Your task to perform on an android device: all mails in gmail Image 0: 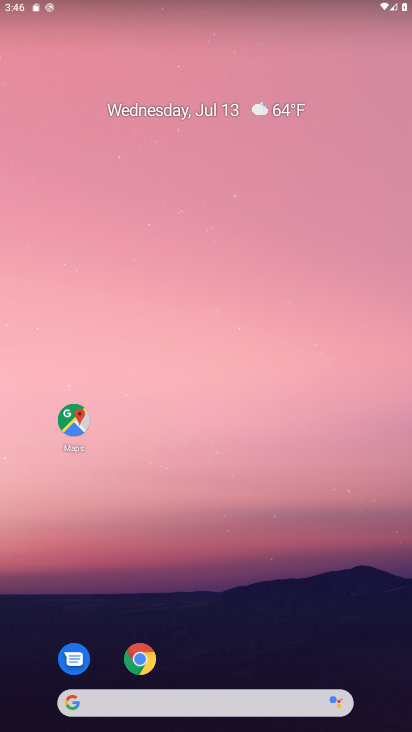
Step 0: drag from (218, 673) to (335, 224)
Your task to perform on an android device: all mails in gmail Image 1: 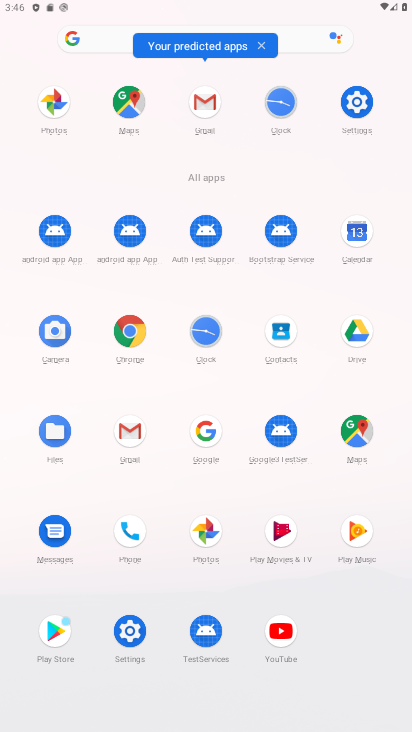
Step 1: click (144, 429)
Your task to perform on an android device: all mails in gmail Image 2: 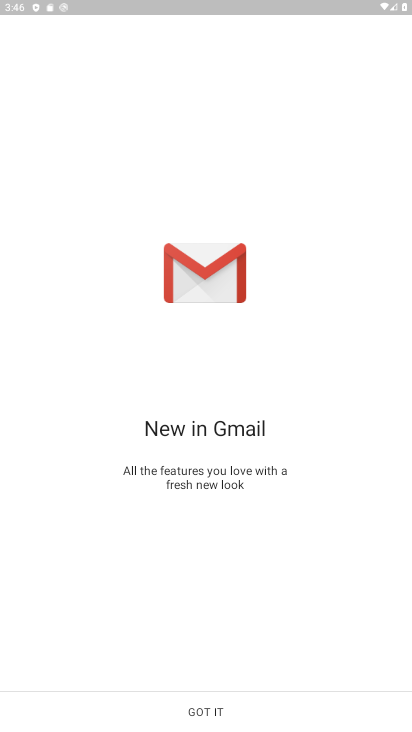
Step 2: click (269, 716)
Your task to perform on an android device: all mails in gmail Image 3: 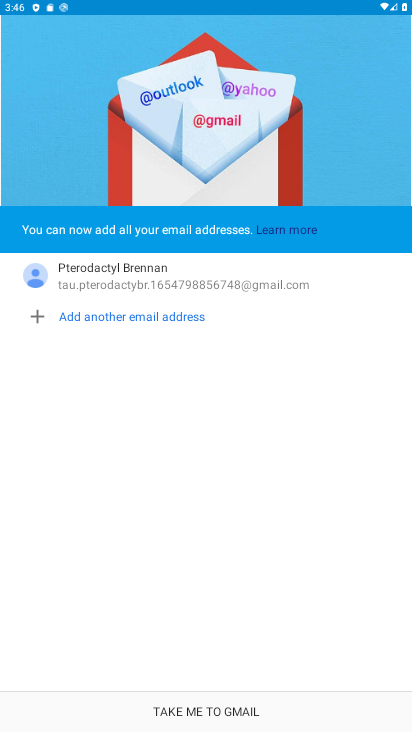
Step 3: click (269, 716)
Your task to perform on an android device: all mails in gmail Image 4: 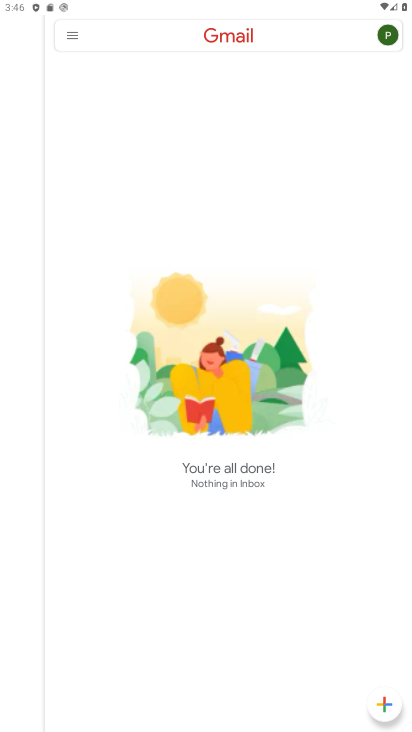
Step 4: click (75, 41)
Your task to perform on an android device: all mails in gmail Image 5: 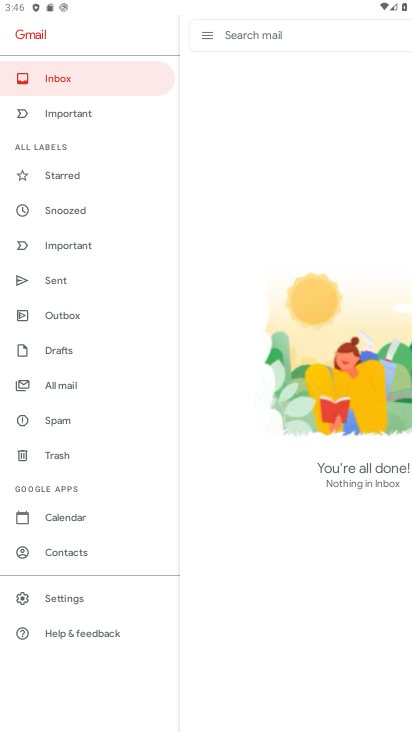
Step 5: click (83, 390)
Your task to perform on an android device: all mails in gmail Image 6: 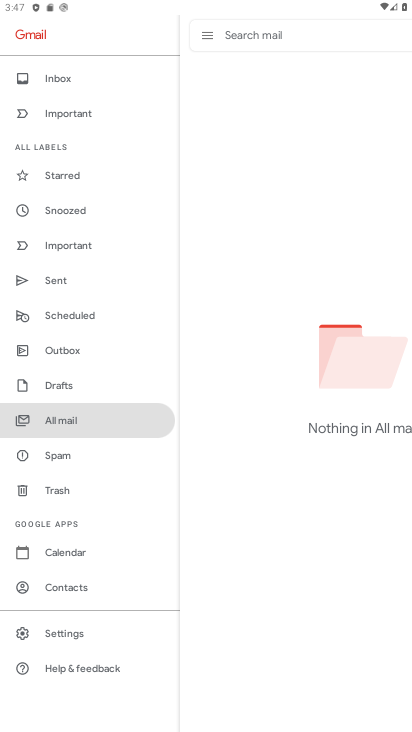
Step 6: task complete